Your task to perform on an android device: open chrome privacy settings Image 0: 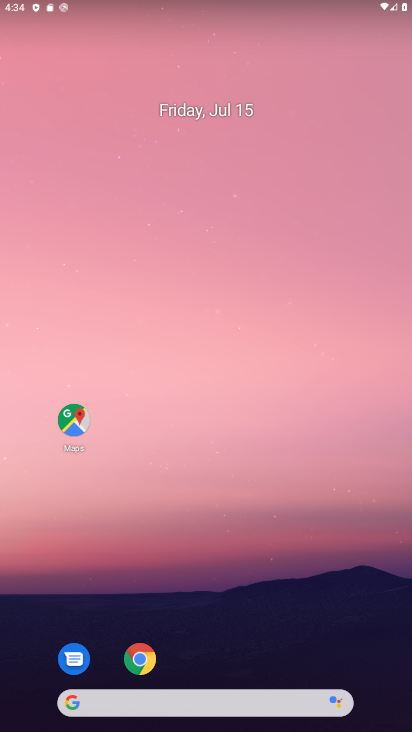
Step 0: drag from (322, 666) to (203, 173)
Your task to perform on an android device: open chrome privacy settings Image 1: 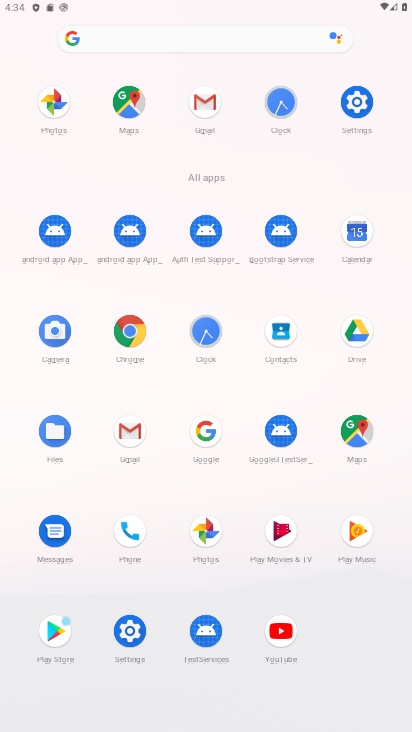
Step 1: click (135, 331)
Your task to perform on an android device: open chrome privacy settings Image 2: 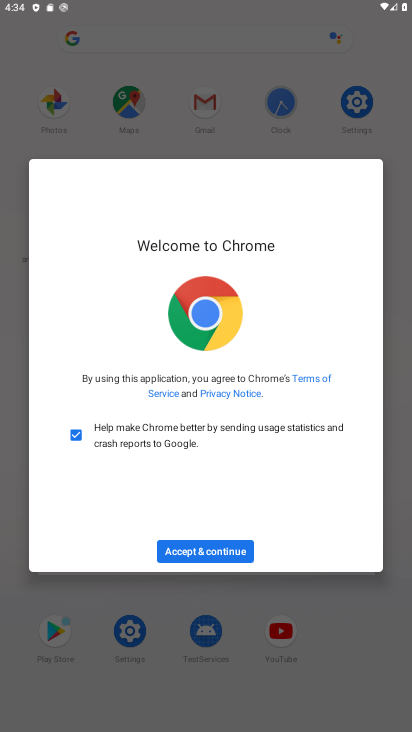
Step 2: click (227, 544)
Your task to perform on an android device: open chrome privacy settings Image 3: 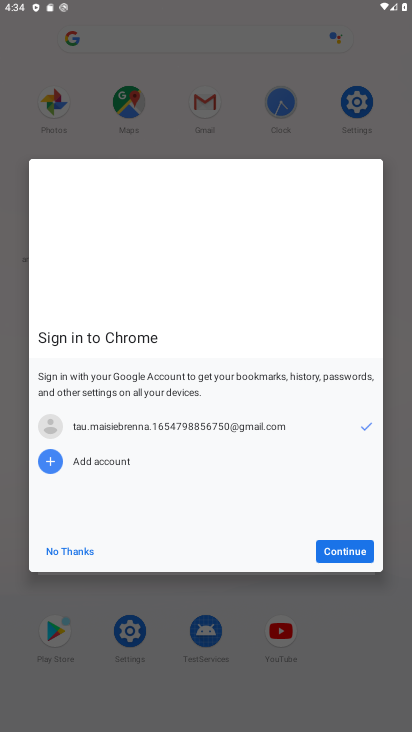
Step 3: click (323, 554)
Your task to perform on an android device: open chrome privacy settings Image 4: 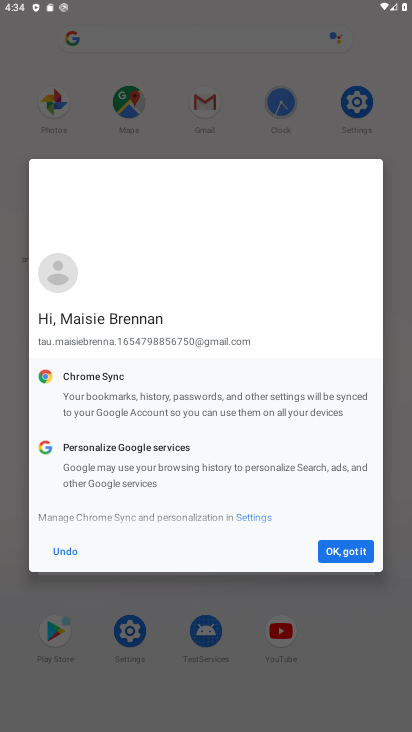
Step 4: click (361, 558)
Your task to perform on an android device: open chrome privacy settings Image 5: 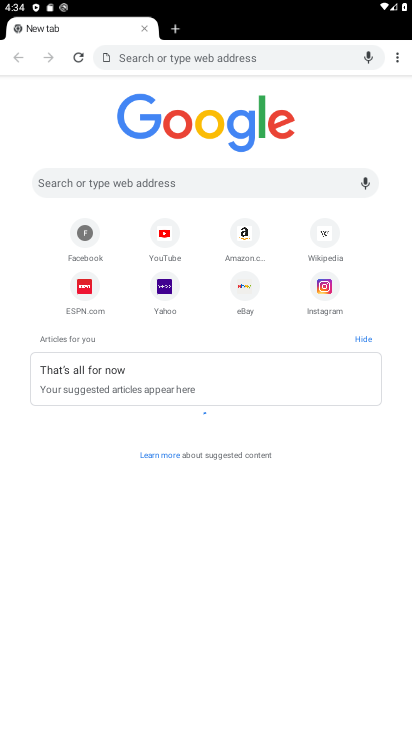
Step 5: click (395, 53)
Your task to perform on an android device: open chrome privacy settings Image 6: 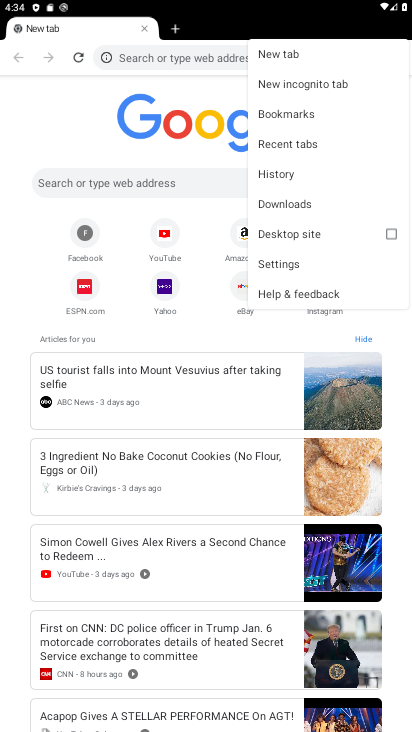
Step 6: click (322, 257)
Your task to perform on an android device: open chrome privacy settings Image 7: 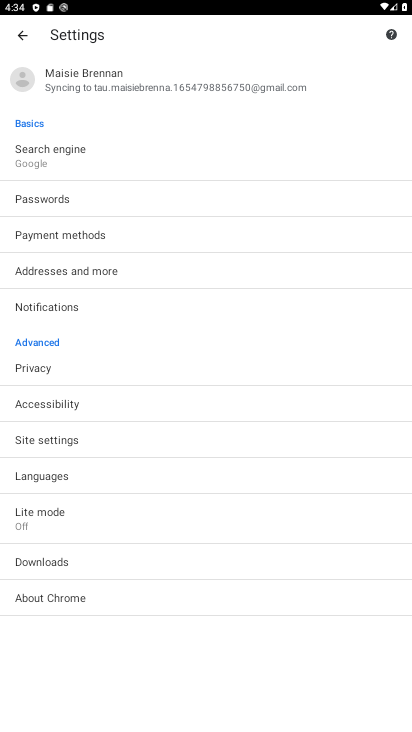
Step 7: click (135, 364)
Your task to perform on an android device: open chrome privacy settings Image 8: 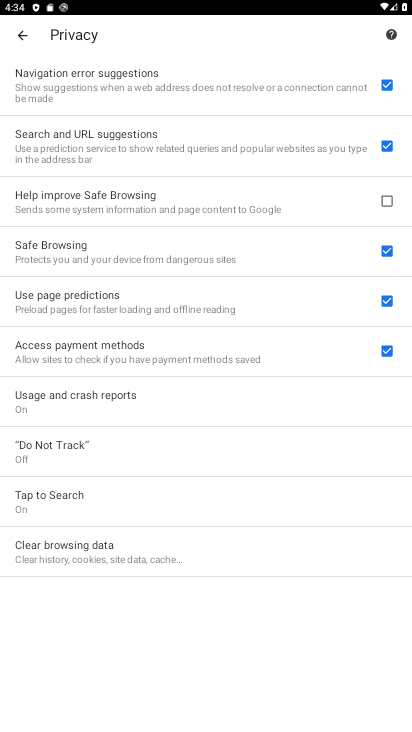
Step 8: task complete